Your task to perform on an android device: Open the stopwatch Image 0: 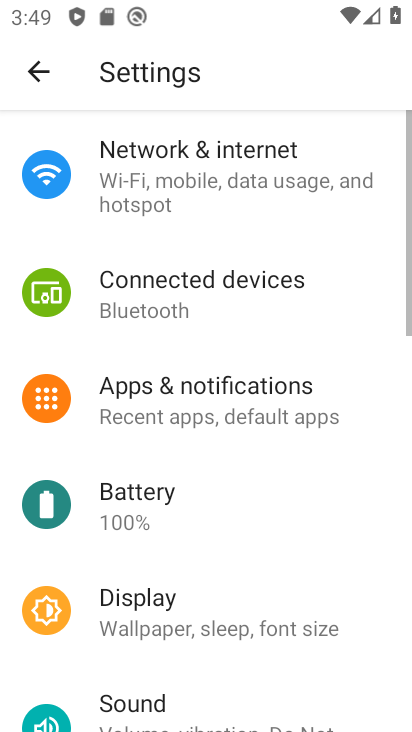
Step 0: press home button
Your task to perform on an android device: Open the stopwatch Image 1: 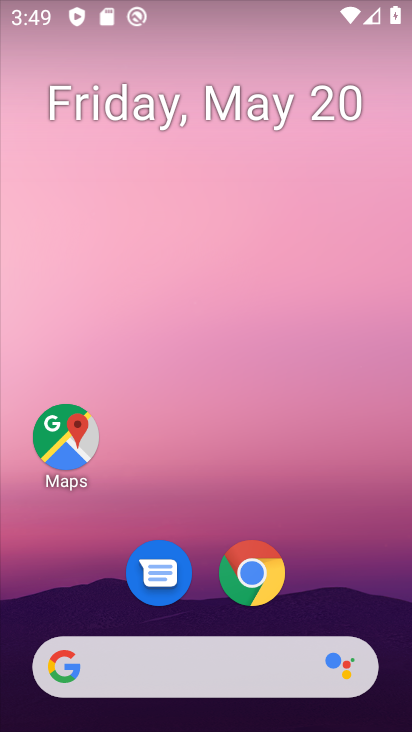
Step 1: drag from (352, 608) to (329, 274)
Your task to perform on an android device: Open the stopwatch Image 2: 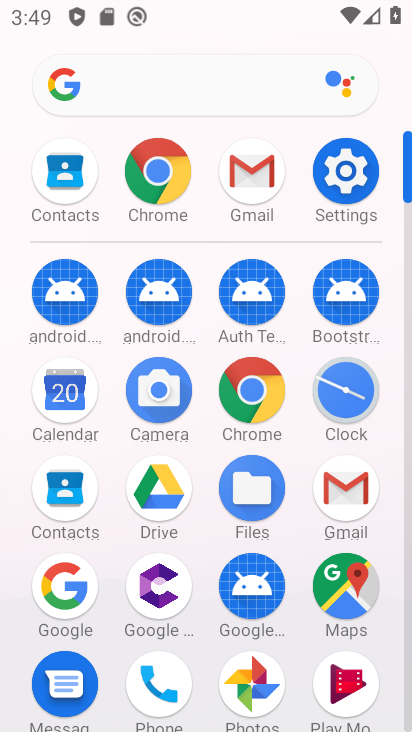
Step 2: click (349, 395)
Your task to perform on an android device: Open the stopwatch Image 3: 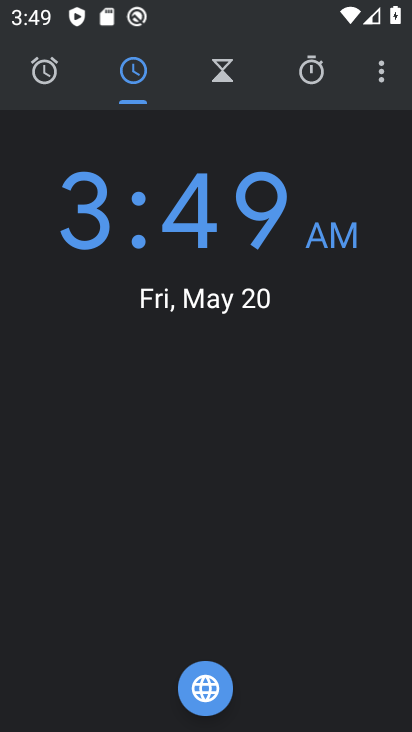
Step 3: click (306, 81)
Your task to perform on an android device: Open the stopwatch Image 4: 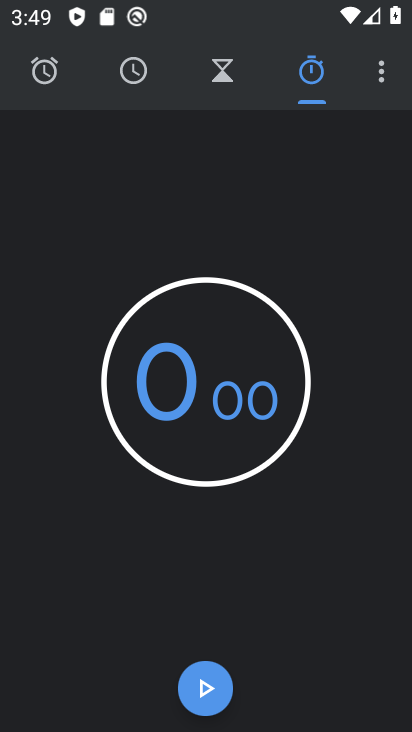
Step 4: click (190, 687)
Your task to perform on an android device: Open the stopwatch Image 5: 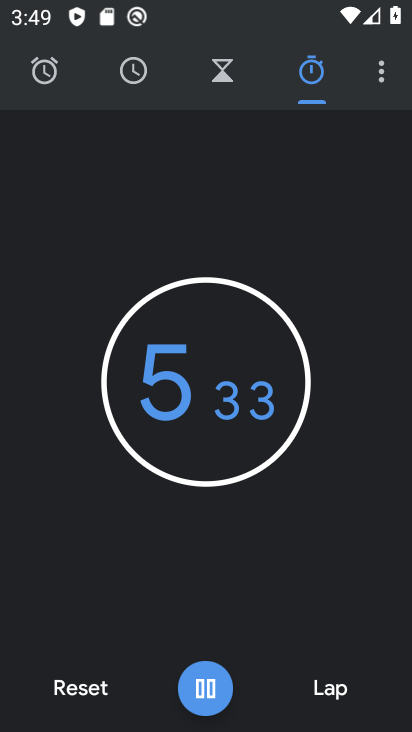
Step 5: click (190, 687)
Your task to perform on an android device: Open the stopwatch Image 6: 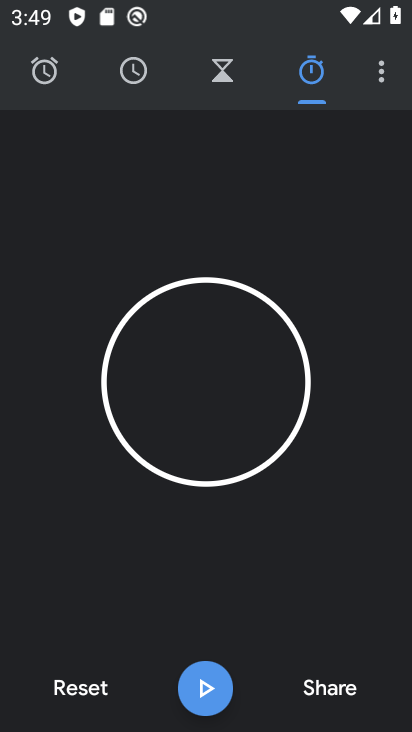
Step 6: task complete